Your task to perform on an android device: Check the news Image 0: 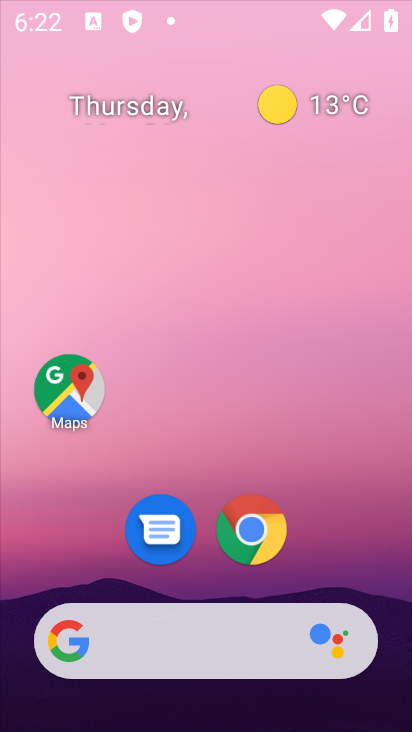
Step 0: click (354, 28)
Your task to perform on an android device: Check the news Image 1: 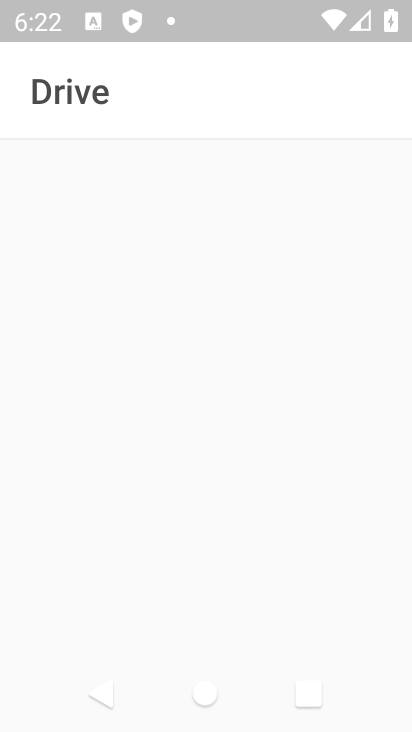
Step 1: press home button
Your task to perform on an android device: Check the news Image 2: 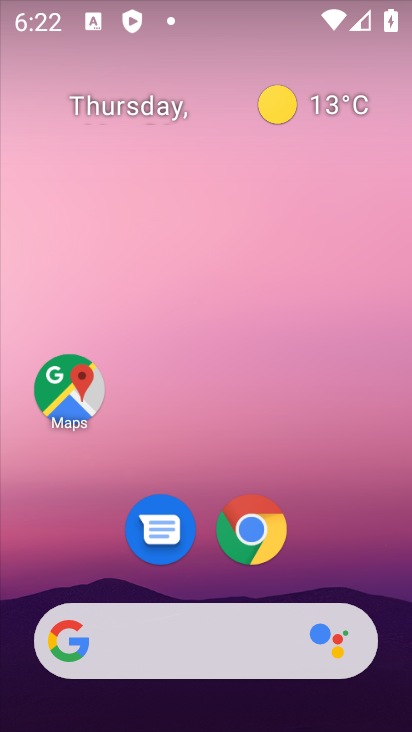
Step 2: drag from (277, 642) to (402, 39)
Your task to perform on an android device: Check the news Image 3: 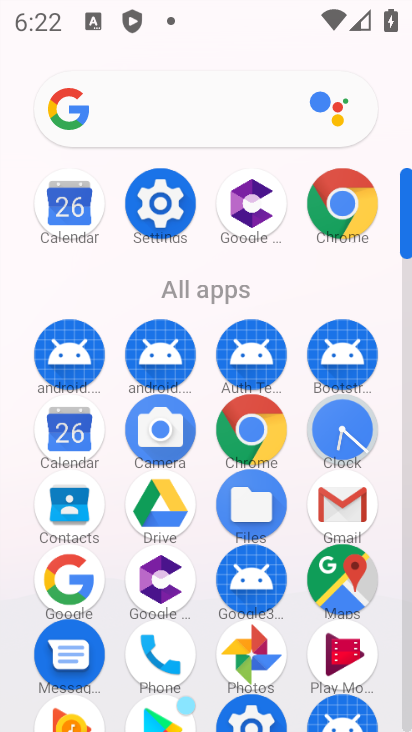
Step 3: click (245, 437)
Your task to perform on an android device: Check the news Image 4: 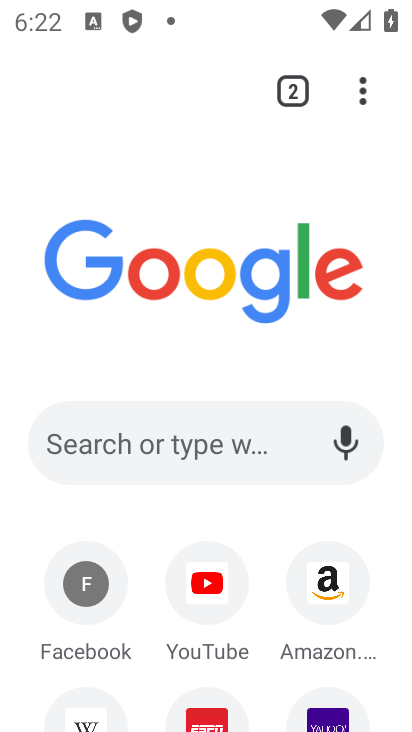
Step 4: click (224, 446)
Your task to perform on an android device: Check the news Image 5: 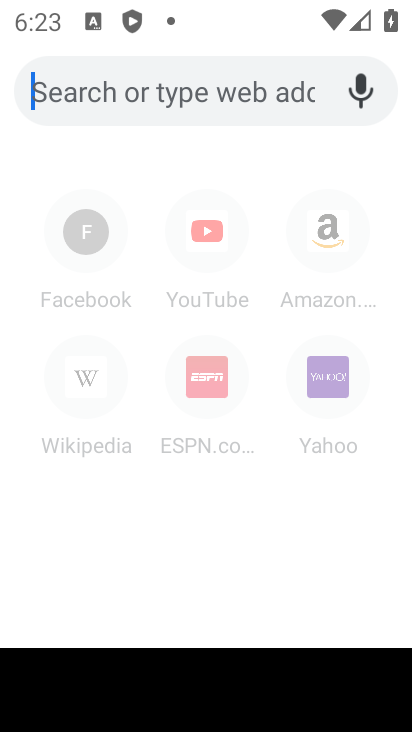
Step 5: type "check the news"
Your task to perform on an android device: Check the news Image 6: 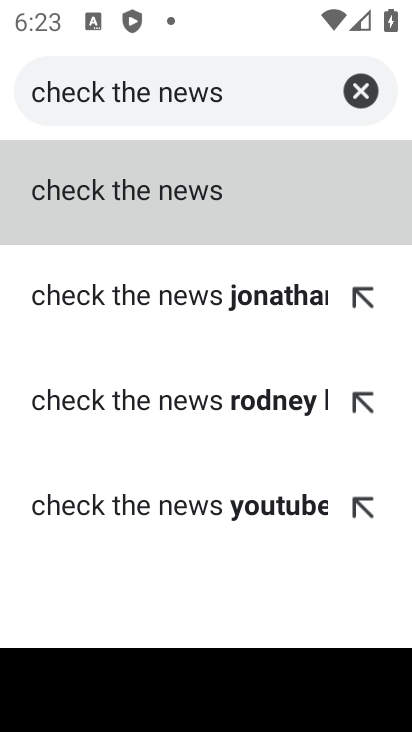
Step 6: click (187, 183)
Your task to perform on an android device: Check the news Image 7: 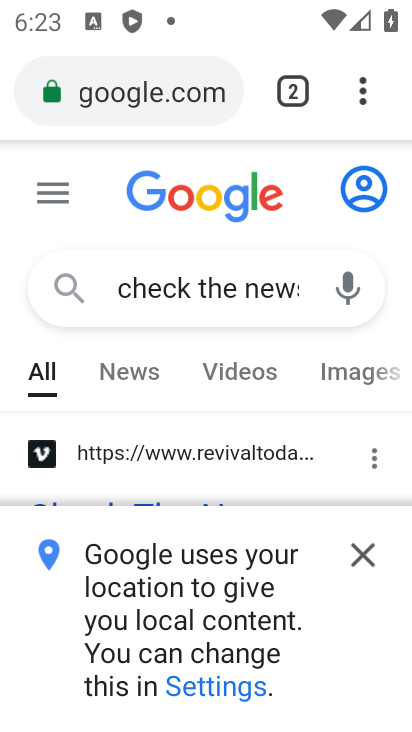
Step 7: task complete